Your task to perform on an android device: open the mobile data screen to see how much data has been used Image 0: 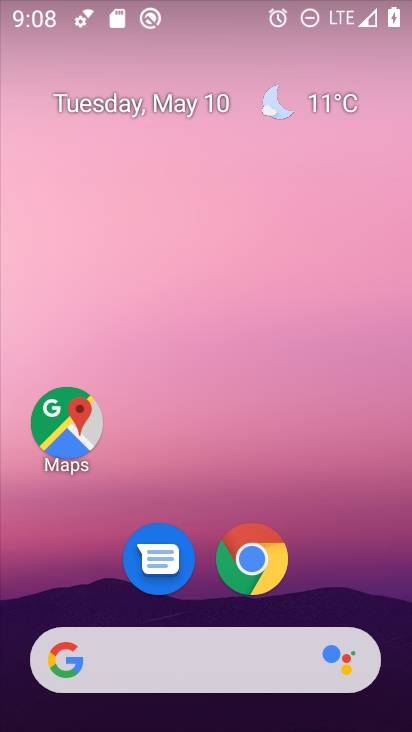
Step 0: drag from (186, 728) to (184, 217)
Your task to perform on an android device: open the mobile data screen to see how much data has been used Image 1: 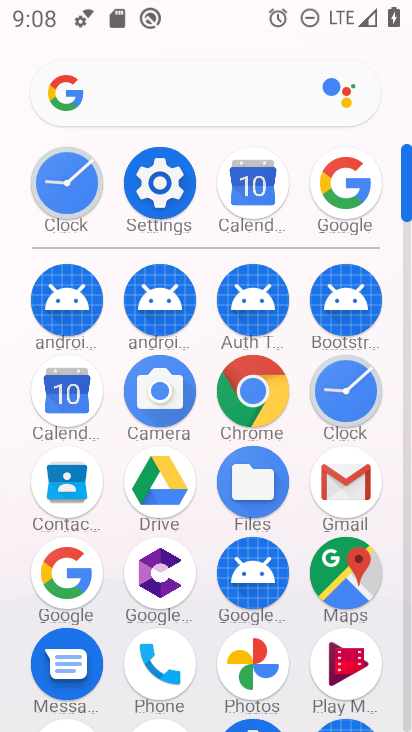
Step 1: click (160, 187)
Your task to perform on an android device: open the mobile data screen to see how much data has been used Image 2: 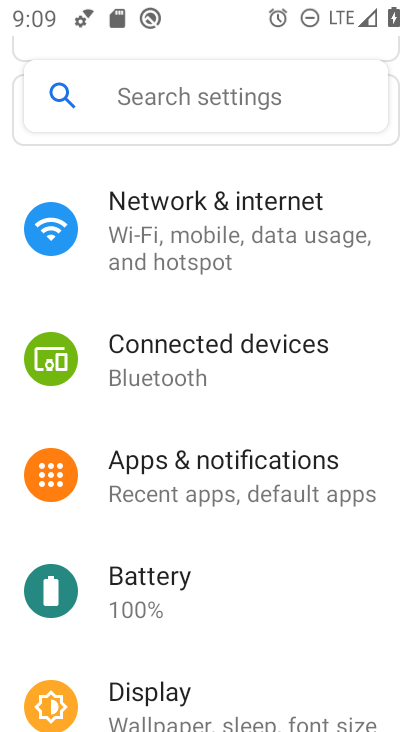
Step 2: drag from (165, 643) to (179, 374)
Your task to perform on an android device: open the mobile data screen to see how much data has been used Image 3: 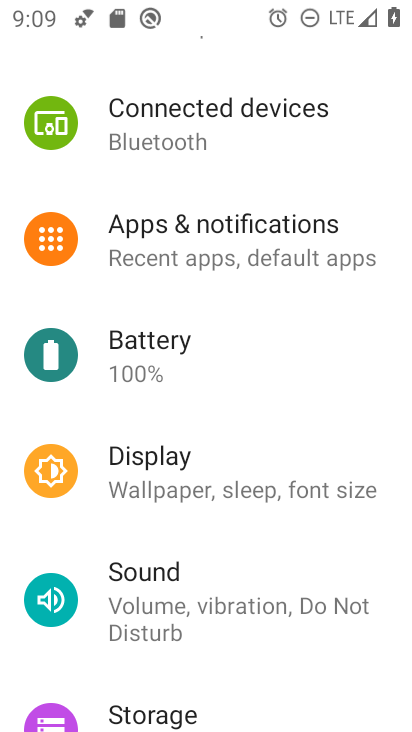
Step 3: drag from (280, 151) to (310, 464)
Your task to perform on an android device: open the mobile data screen to see how much data has been used Image 4: 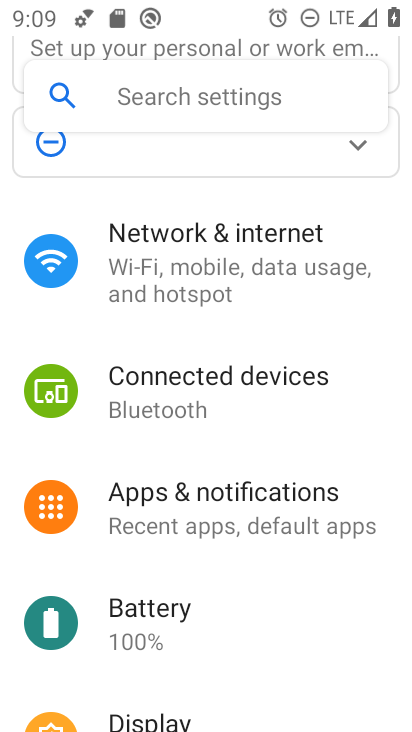
Step 4: click (181, 276)
Your task to perform on an android device: open the mobile data screen to see how much data has been used Image 5: 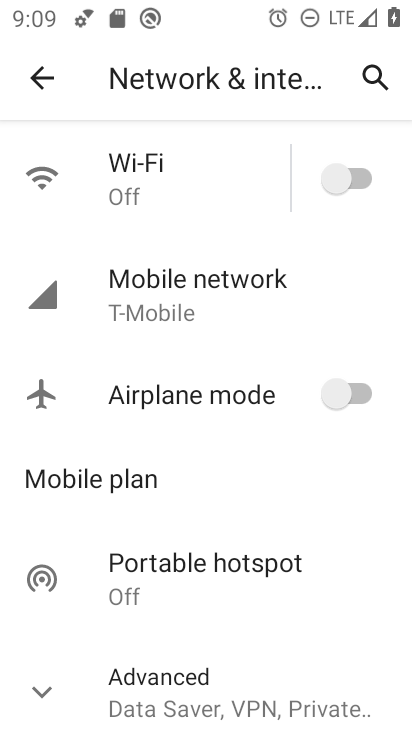
Step 5: click (168, 283)
Your task to perform on an android device: open the mobile data screen to see how much data has been used Image 6: 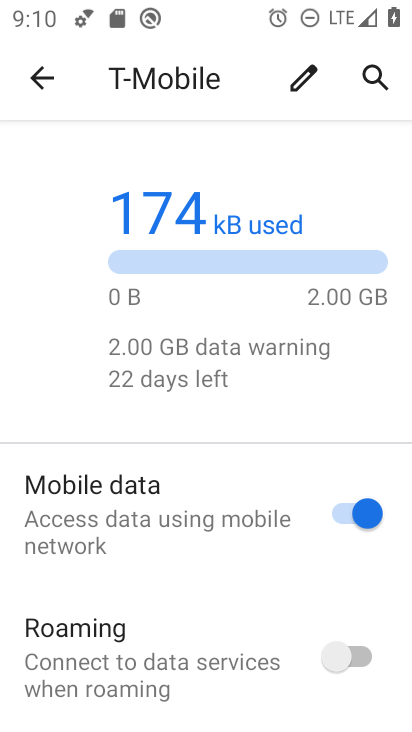
Step 6: drag from (167, 657) to (169, 272)
Your task to perform on an android device: open the mobile data screen to see how much data has been used Image 7: 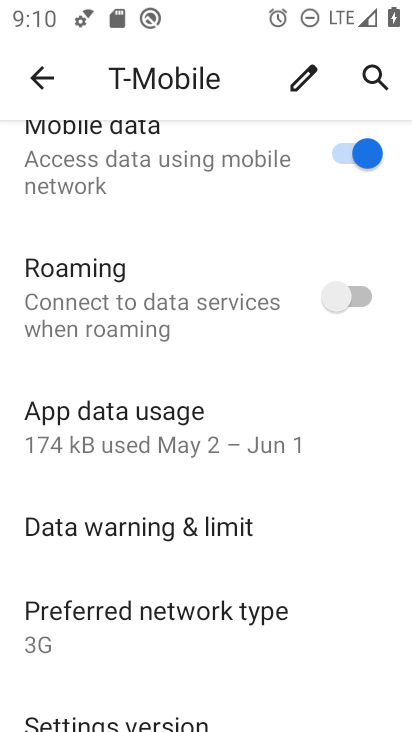
Step 7: click (118, 418)
Your task to perform on an android device: open the mobile data screen to see how much data has been used Image 8: 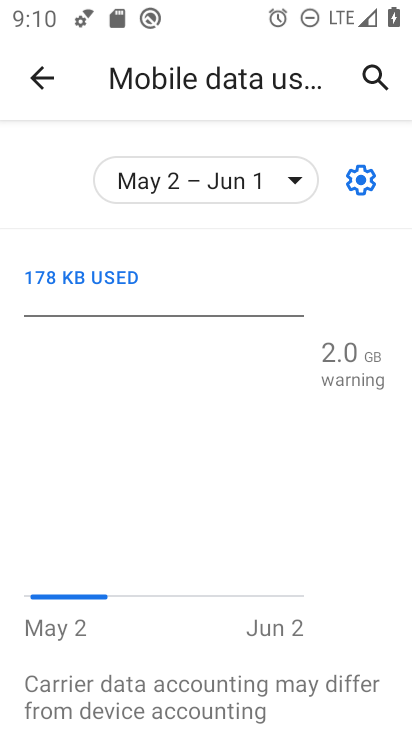
Step 8: task complete